Your task to perform on an android device: Open wifi settings Image 0: 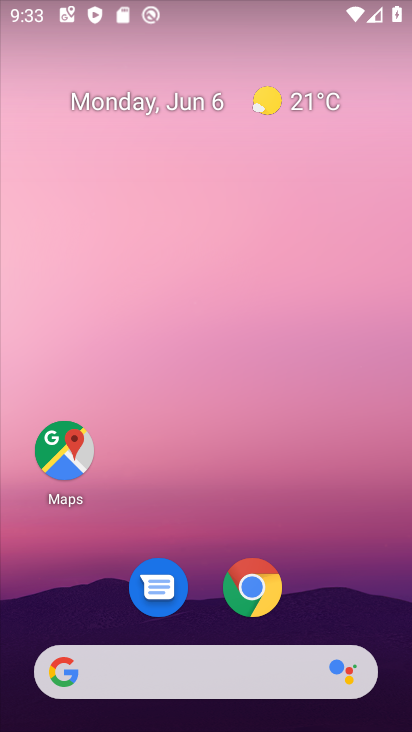
Step 0: drag from (273, 713) to (298, 14)
Your task to perform on an android device: Open wifi settings Image 1: 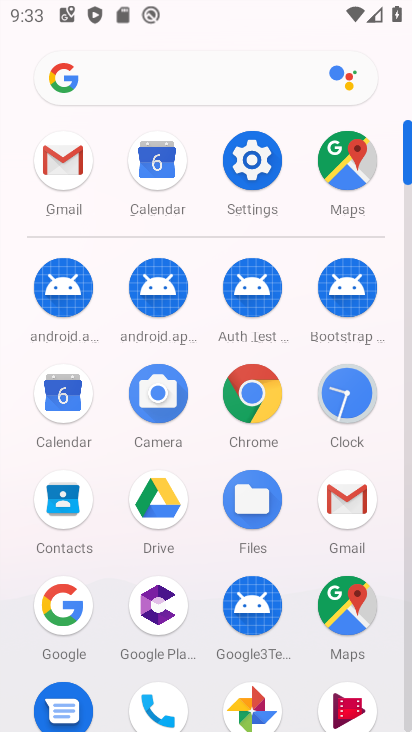
Step 1: click (259, 151)
Your task to perform on an android device: Open wifi settings Image 2: 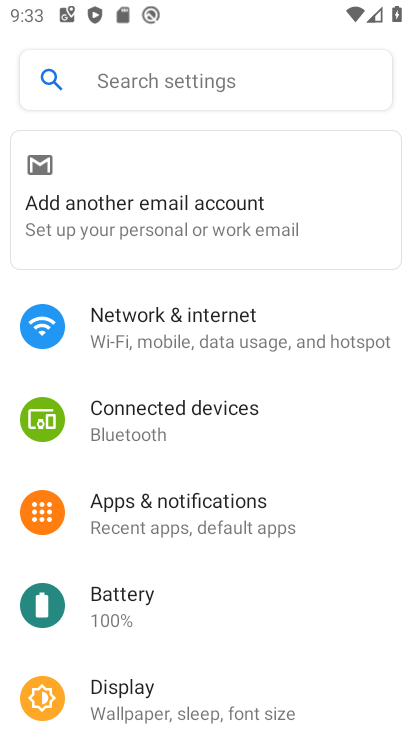
Step 2: click (231, 337)
Your task to perform on an android device: Open wifi settings Image 3: 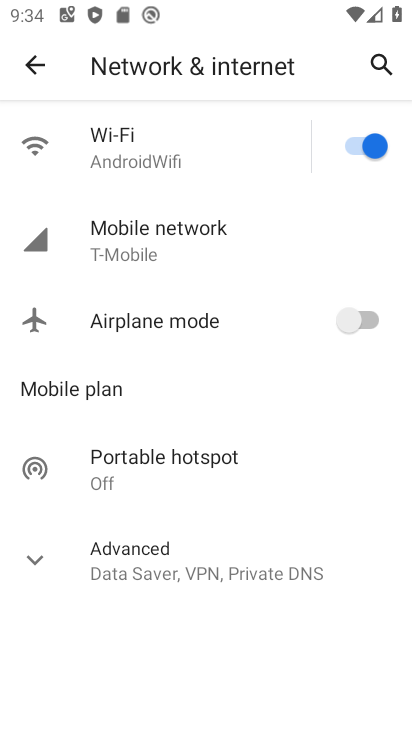
Step 3: click (166, 153)
Your task to perform on an android device: Open wifi settings Image 4: 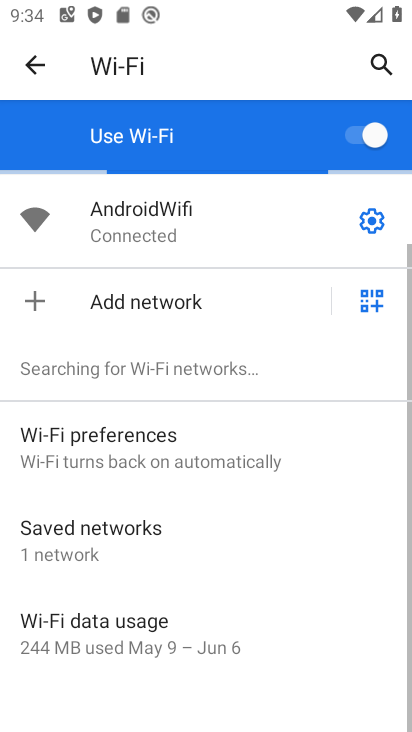
Step 4: click (375, 224)
Your task to perform on an android device: Open wifi settings Image 5: 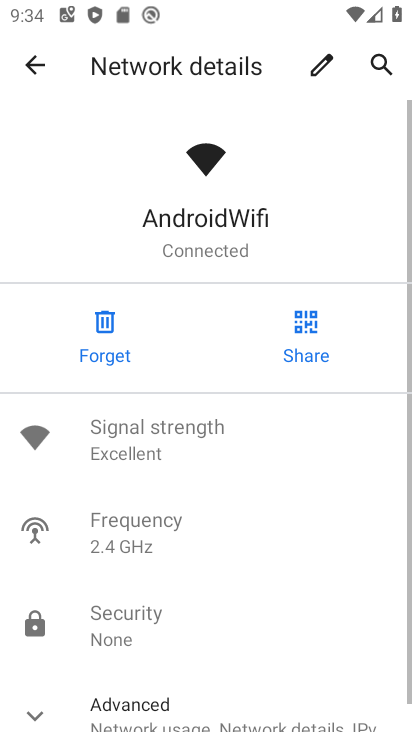
Step 5: task complete